Your task to perform on an android device: Open Google Image 0: 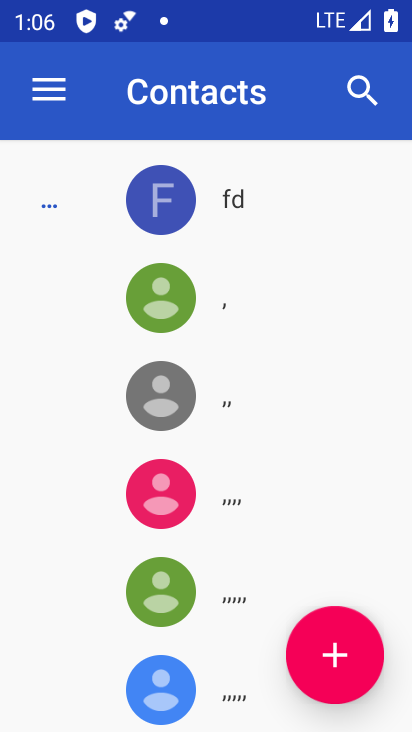
Step 0: press home button
Your task to perform on an android device: Open Google Image 1: 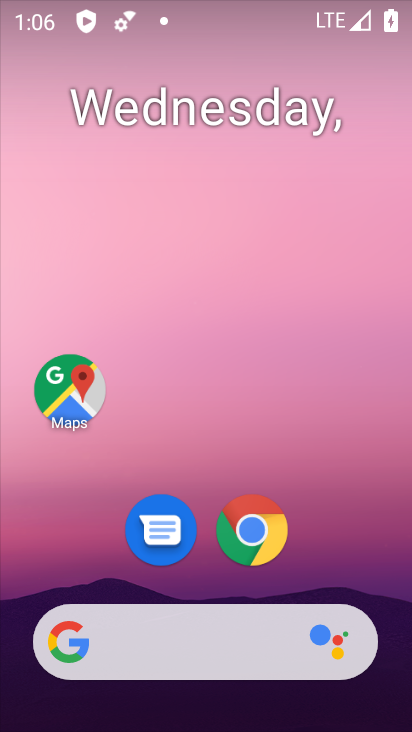
Step 1: drag from (362, 485) to (308, 78)
Your task to perform on an android device: Open Google Image 2: 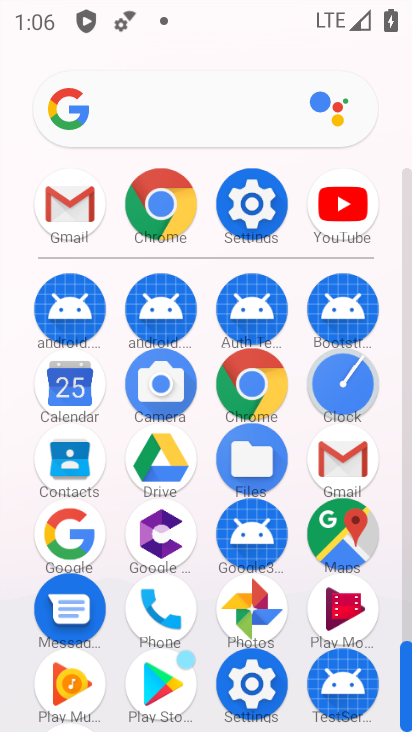
Step 2: click (82, 541)
Your task to perform on an android device: Open Google Image 3: 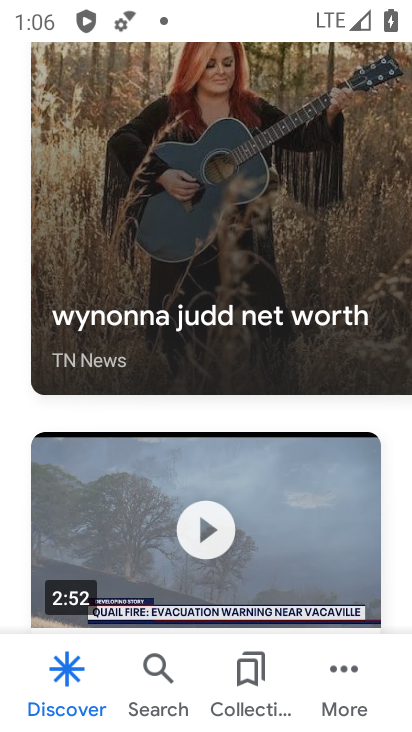
Step 3: task complete